Your task to perform on an android device: check battery use Image 0: 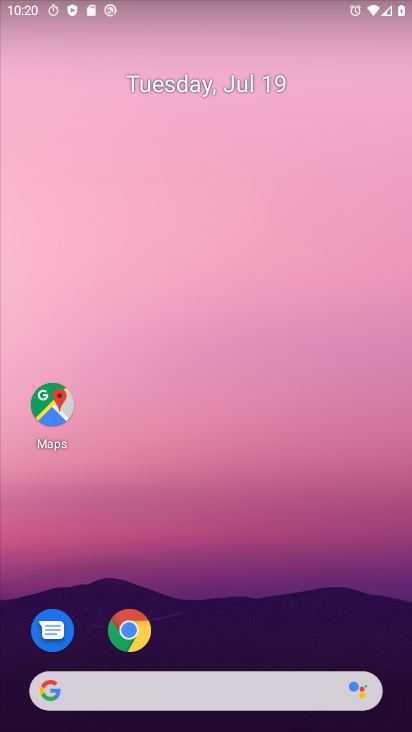
Step 0: press home button
Your task to perform on an android device: check battery use Image 1: 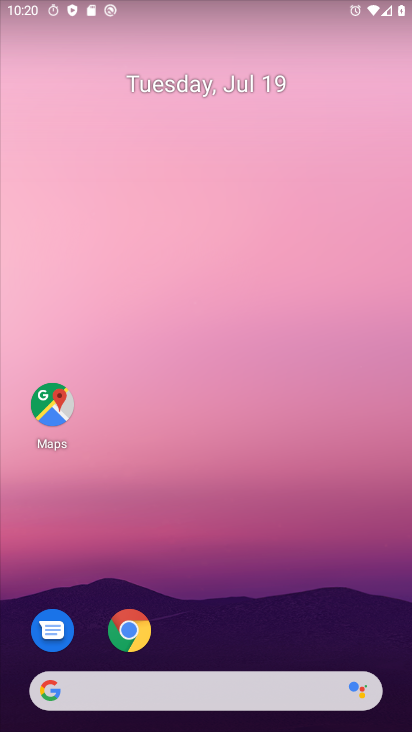
Step 1: drag from (268, 603) to (399, 240)
Your task to perform on an android device: check battery use Image 2: 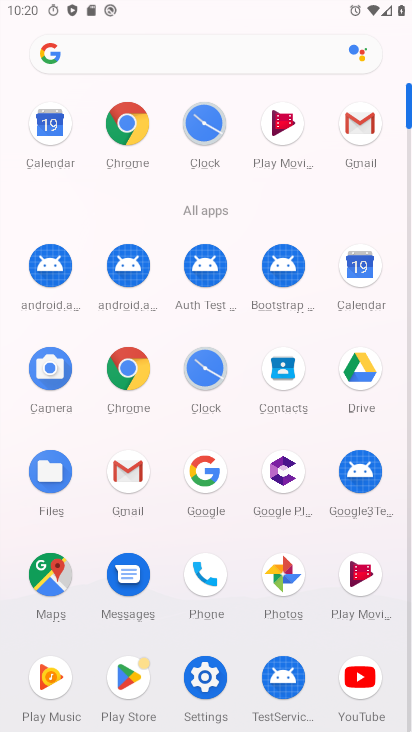
Step 2: click (210, 672)
Your task to perform on an android device: check battery use Image 3: 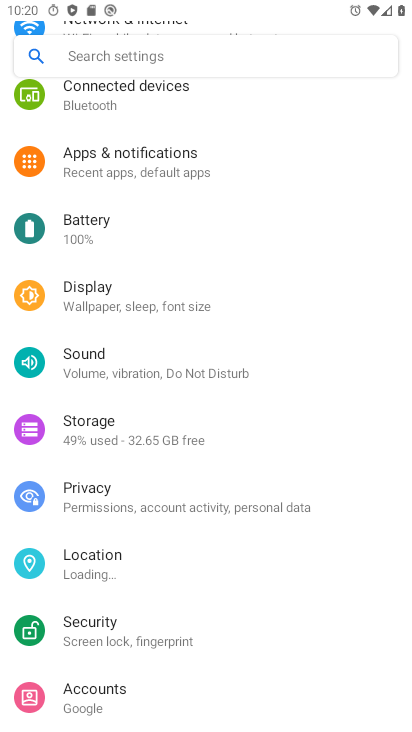
Step 3: click (108, 215)
Your task to perform on an android device: check battery use Image 4: 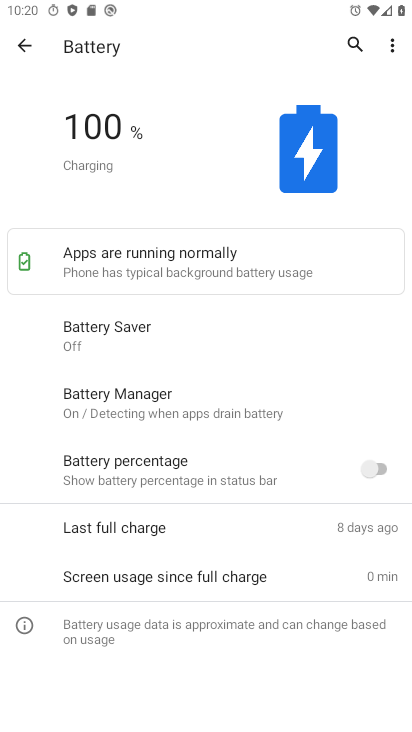
Step 4: task complete